Your task to perform on an android device: add a contact in the contacts app Image 0: 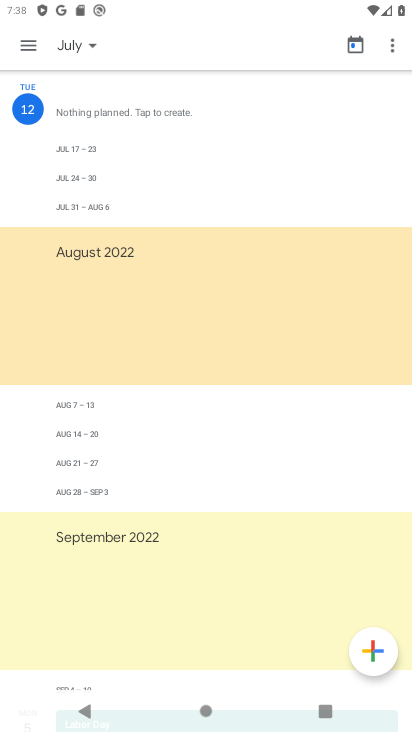
Step 0: drag from (112, 451) to (132, 350)
Your task to perform on an android device: add a contact in the contacts app Image 1: 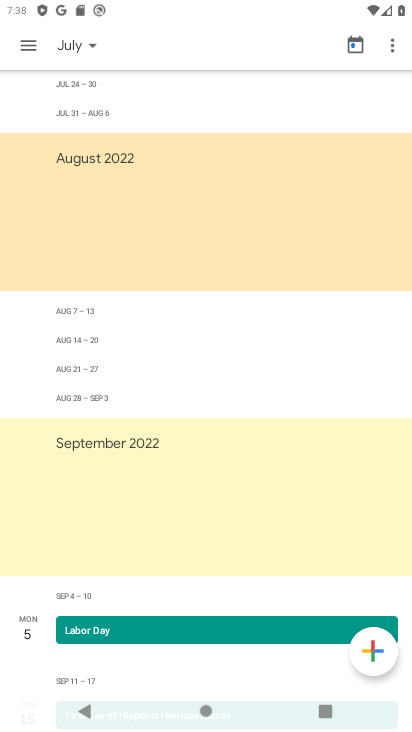
Step 1: press home button
Your task to perform on an android device: add a contact in the contacts app Image 2: 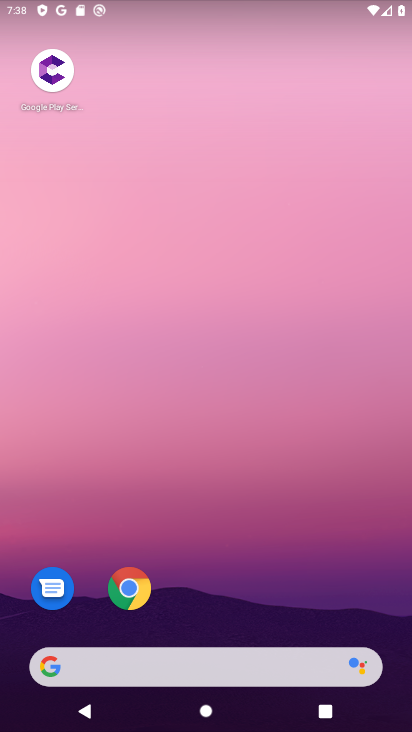
Step 2: drag from (23, 711) to (314, 24)
Your task to perform on an android device: add a contact in the contacts app Image 3: 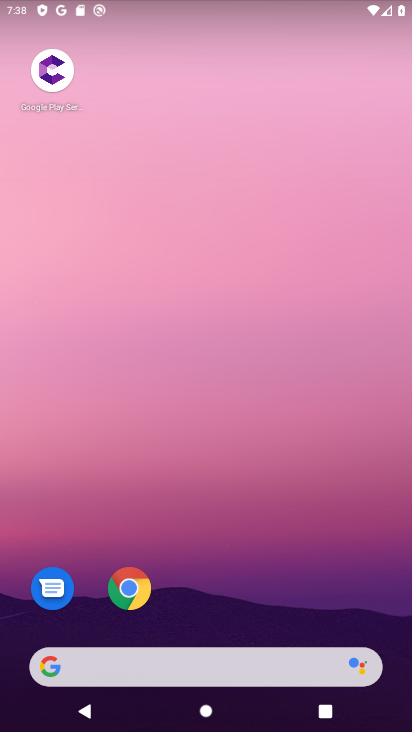
Step 3: drag from (61, 643) to (201, 86)
Your task to perform on an android device: add a contact in the contacts app Image 4: 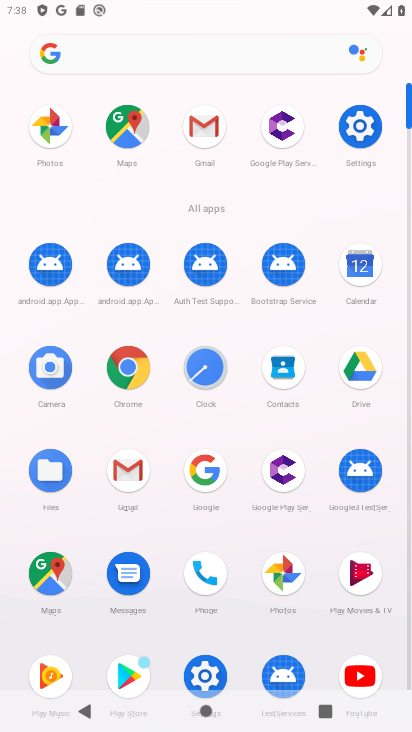
Step 4: click (195, 582)
Your task to perform on an android device: add a contact in the contacts app Image 5: 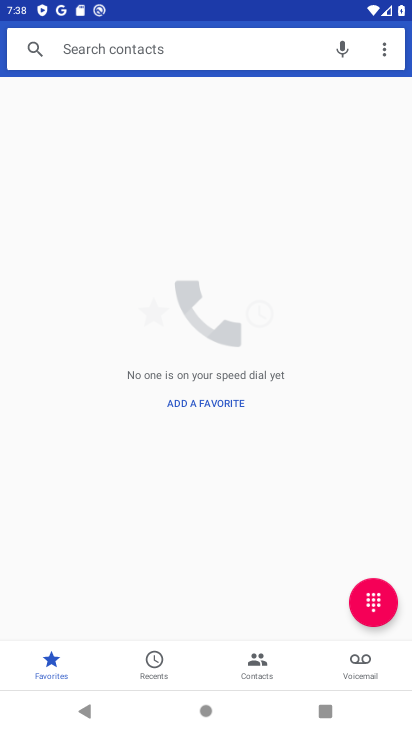
Step 5: click (247, 664)
Your task to perform on an android device: add a contact in the contacts app Image 6: 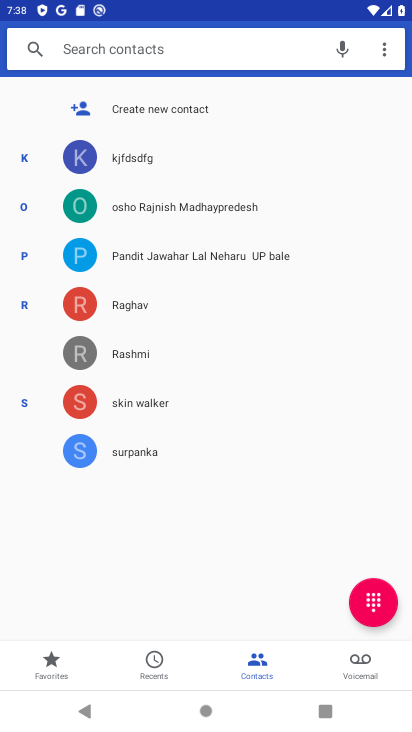
Step 6: click (73, 111)
Your task to perform on an android device: add a contact in the contacts app Image 7: 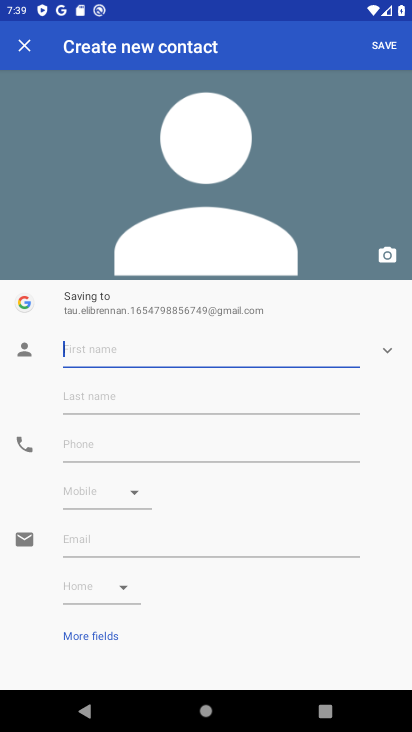
Step 7: type "xyz"
Your task to perform on an android device: add a contact in the contacts app Image 8: 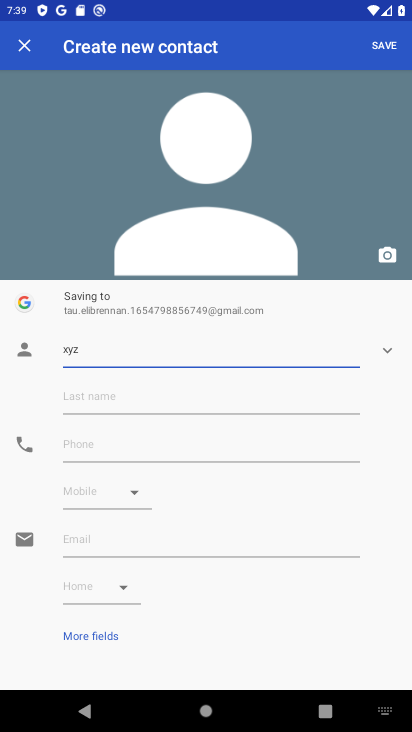
Step 8: type ""
Your task to perform on an android device: add a contact in the contacts app Image 9: 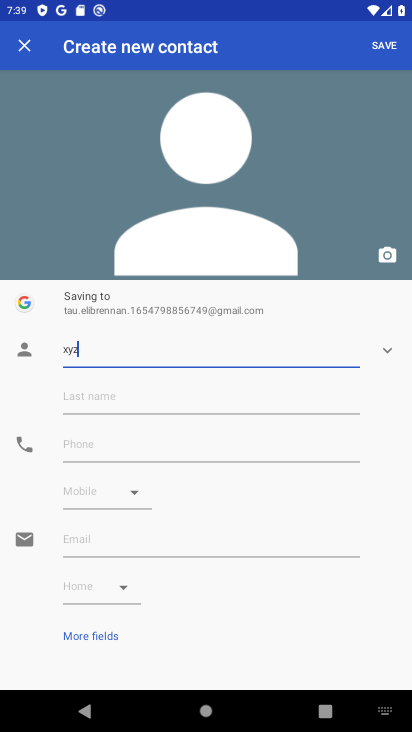
Step 9: click (388, 49)
Your task to perform on an android device: add a contact in the contacts app Image 10: 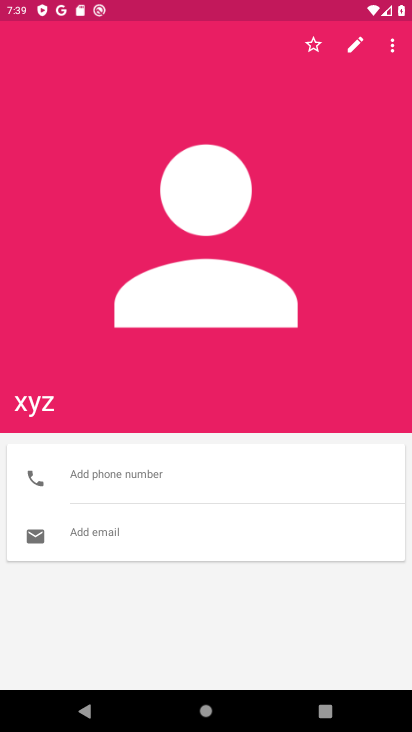
Step 10: task complete